Your task to perform on an android device: add a label to a message in the gmail app Image 0: 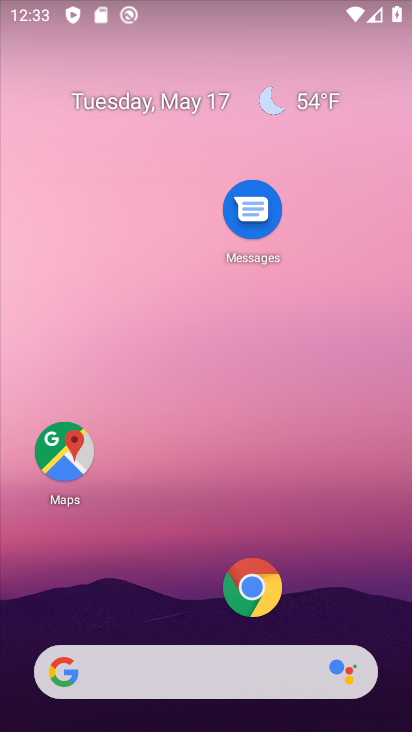
Step 0: drag from (145, 605) to (257, 71)
Your task to perform on an android device: add a label to a message in the gmail app Image 1: 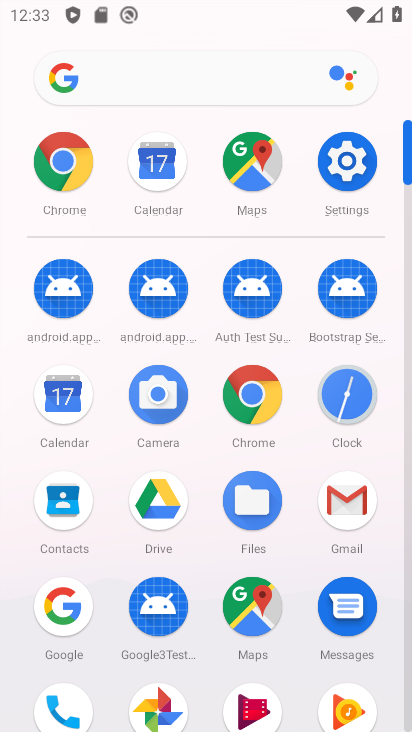
Step 1: click (357, 509)
Your task to perform on an android device: add a label to a message in the gmail app Image 2: 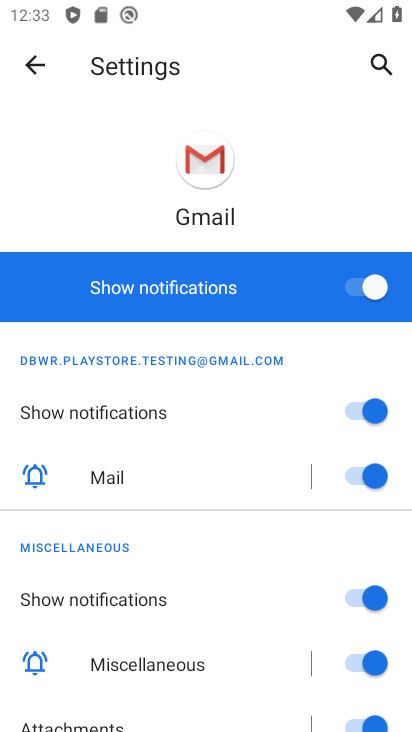
Step 2: click (30, 47)
Your task to perform on an android device: add a label to a message in the gmail app Image 3: 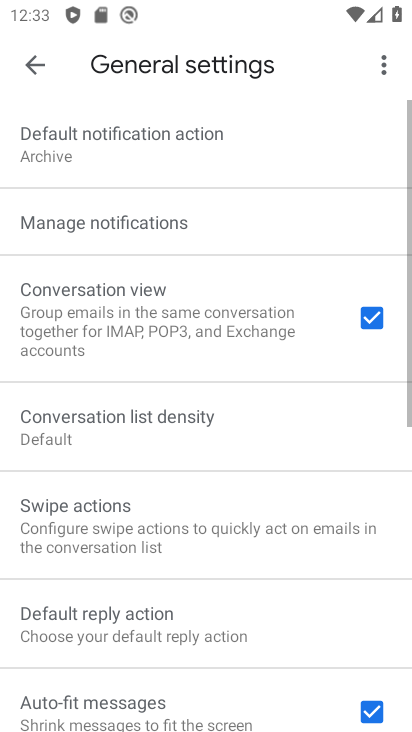
Step 3: click (43, 65)
Your task to perform on an android device: add a label to a message in the gmail app Image 4: 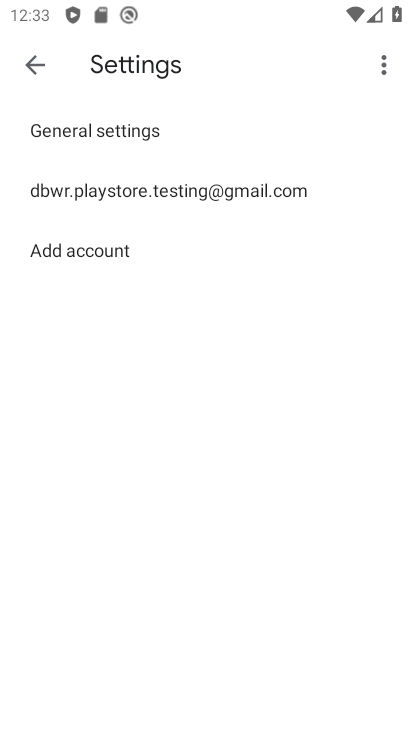
Step 4: click (41, 68)
Your task to perform on an android device: add a label to a message in the gmail app Image 5: 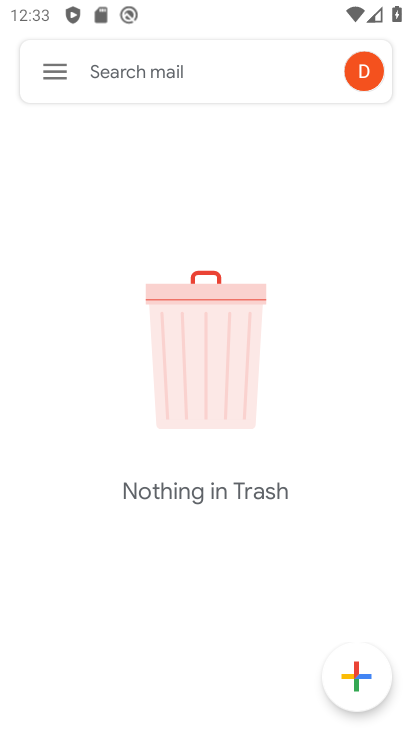
Step 5: click (41, 69)
Your task to perform on an android device: add a label to a message in the gmail app Image 6: 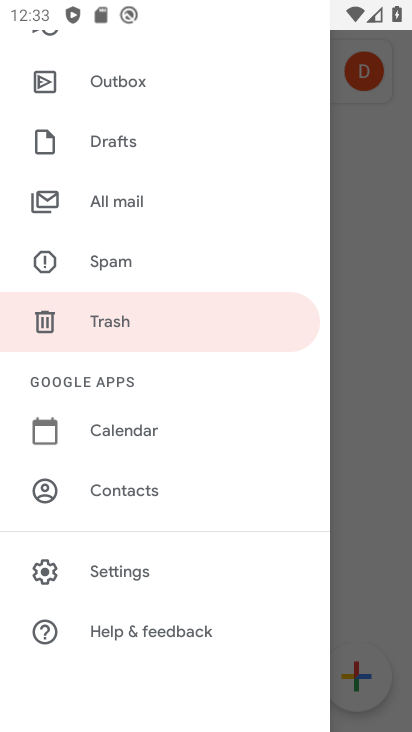
Step 6: click (108, 212)
Your task to perform on an android device: add a label to a message in the gmail app Image 7: 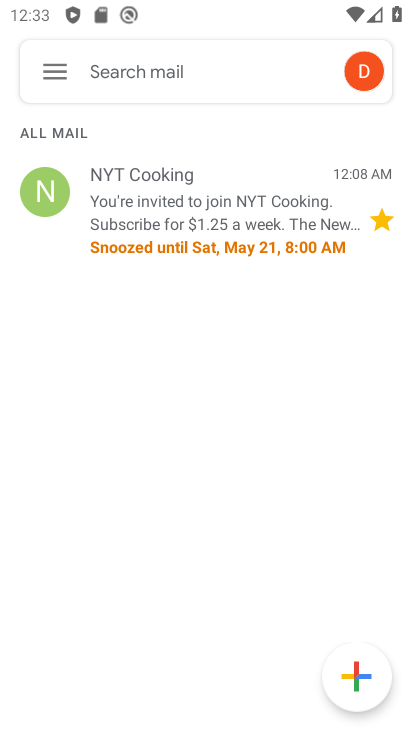
Step 7: click (40, 183)
Your task to perform on an android device: add a label to a message in the gmail app Image 8: 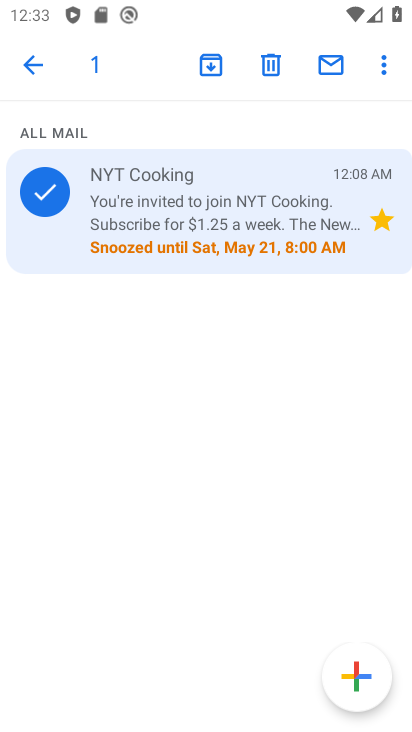
Step 8: click (380, 64)
Your task to perform on an android device: add a label to a message in the gmail app Image 9: 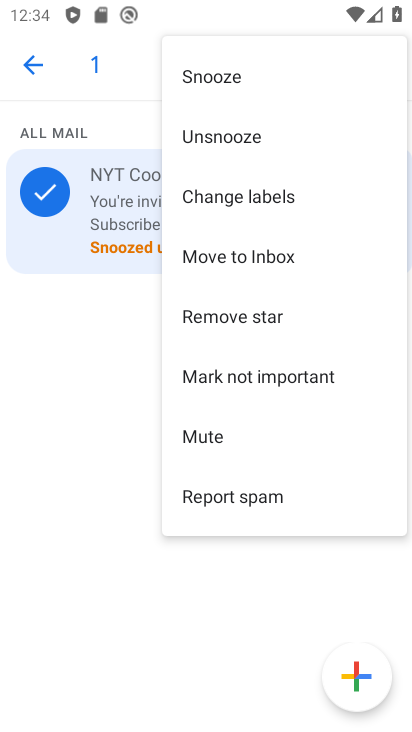
Step 9: click (287, 195)
Your task to perform on an android device: add a label to a message in the gmail app Image 10: 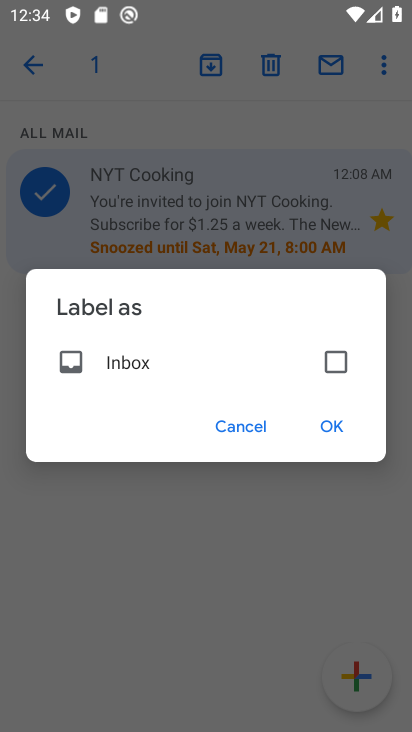
Step 10: click (326, 352)
Your task to perform on an android device: add a label to a message in the gmail app Image 11: 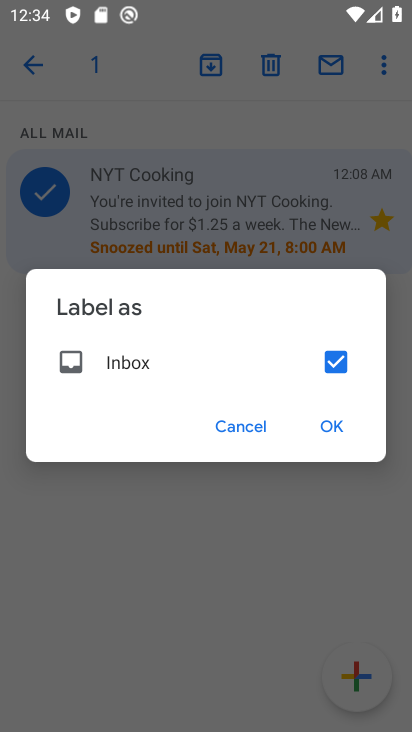
Step 11: click (332, 428)
Your task to perform on an android device: add a label to a message in the gmail app Image 12: 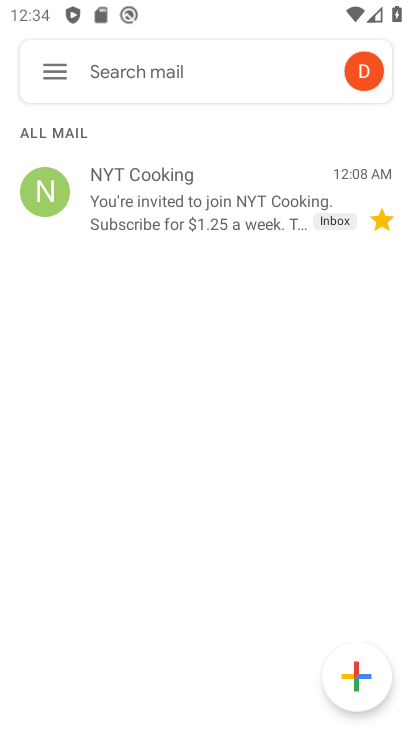
Step 12: task complete